Your task to perform on an android device: Turn off the flashlight Image 0: 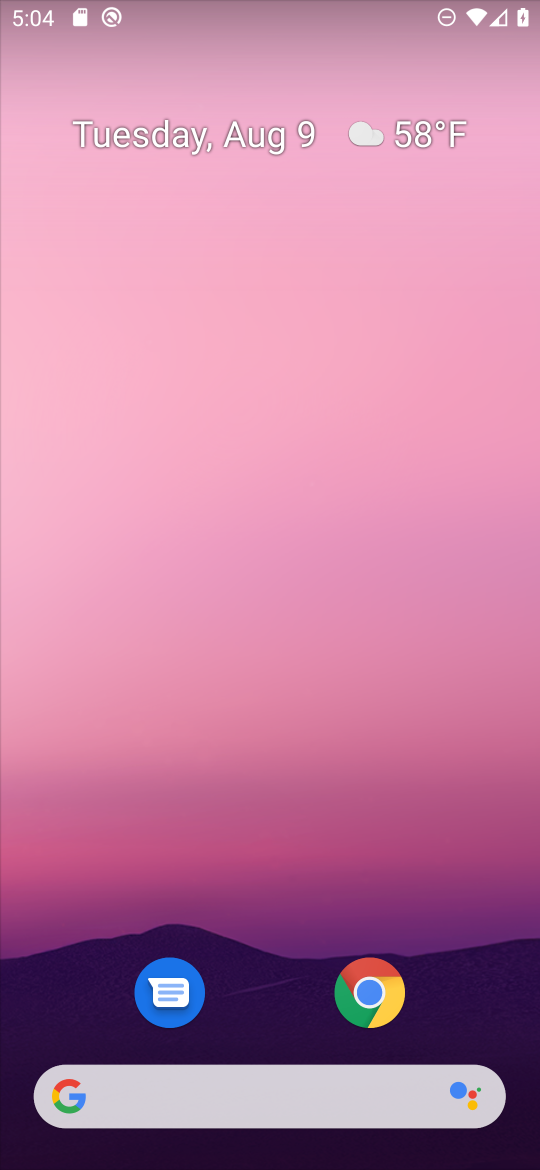
Step 0: drag from (321, 0) to (289, 546)
Your task to perform on an android device: Turn off the flashlight Image 1: 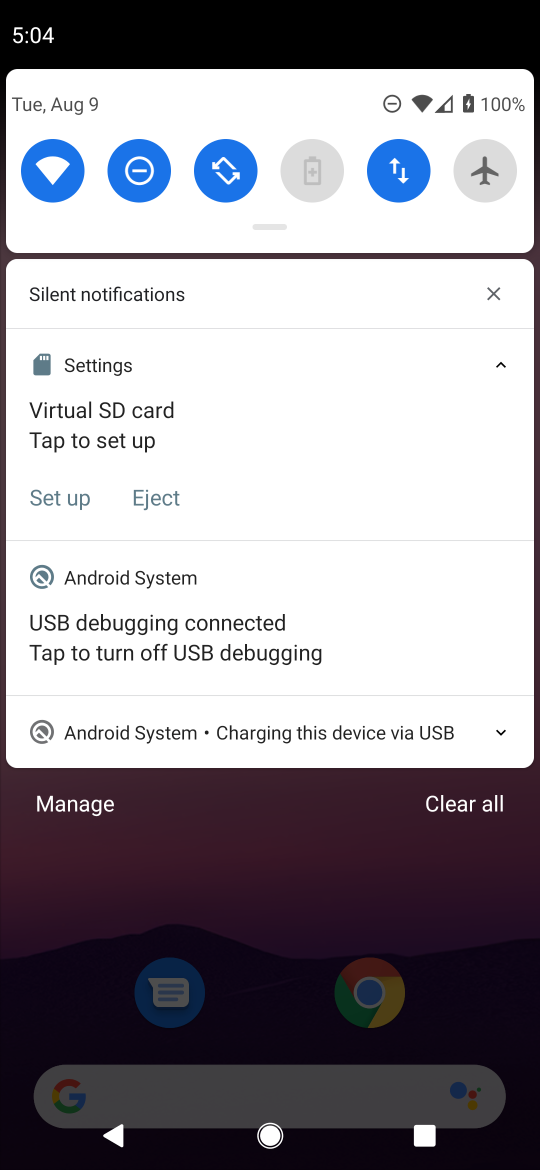
Step 1: task complete